Your task to perform on an android device: When is my next appointment? Image 0: 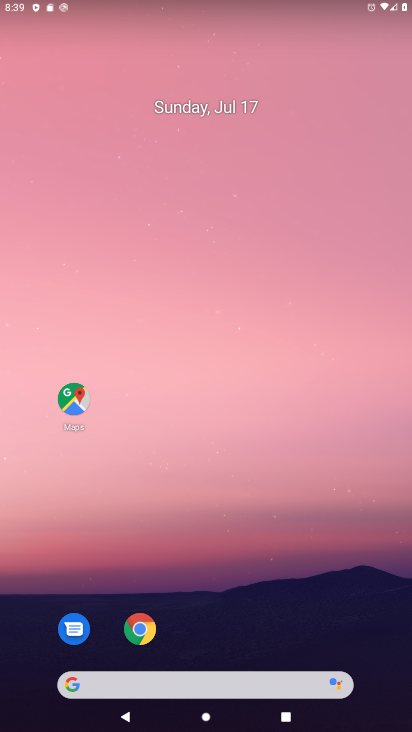
Step 0: drag from (311, 637) to (407, 210)
Your task to perform on an android device: When is my next appointment? Image 1: 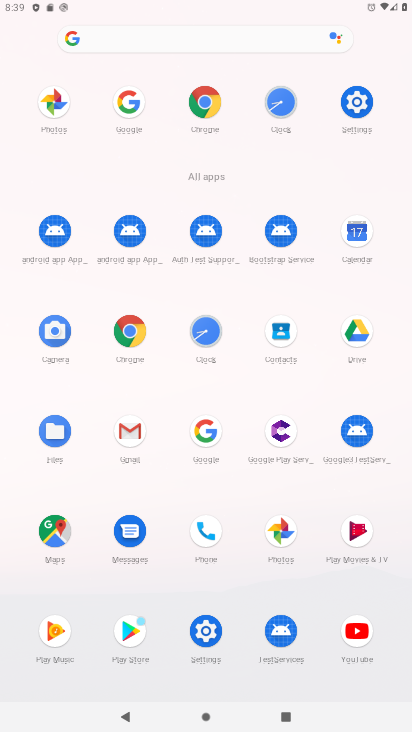
Step 1: click (367, 231)
Your task to perform on an android device: When is my next appointment? Image 2: 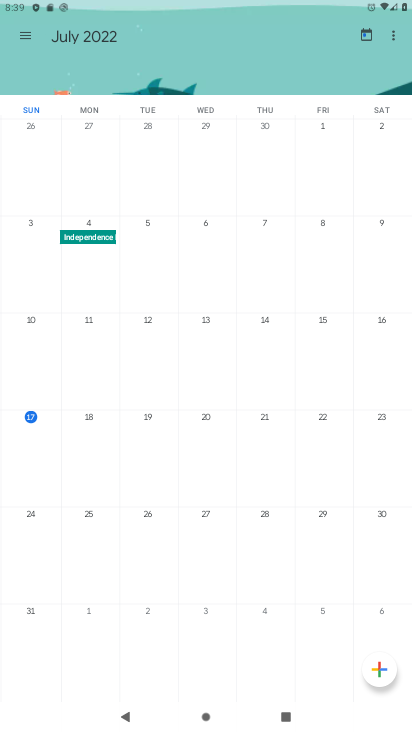
Step 2: click (36, 416)
Your task to perform on an android device: When is my next appointment? Image 3: 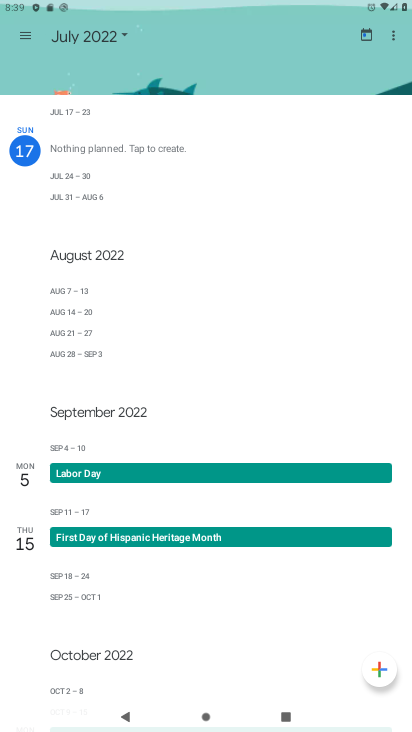
Step 3: task complete